Your task to perform on an android device: Toggle the flashlight Image 0: 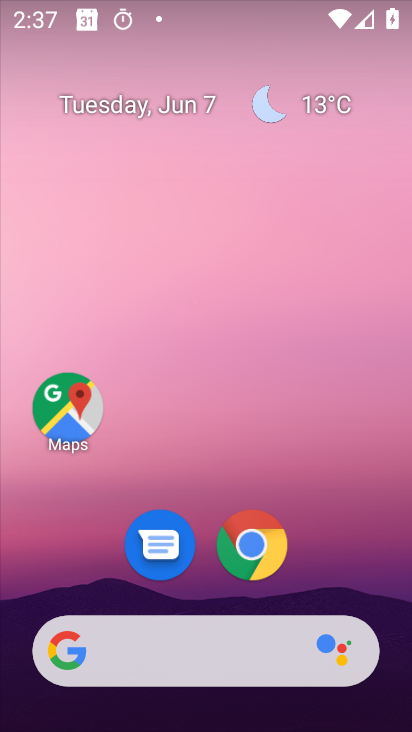
Step 0: drag from (268, 13) to (252, 515)
Your task to perform on an android device: Toggle the flashlight Image 1: 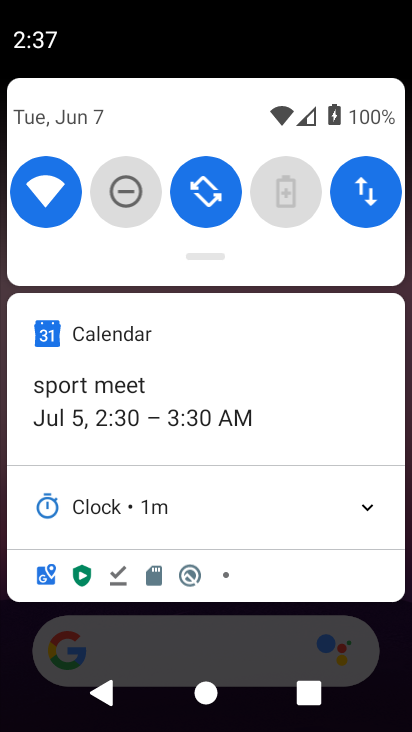
Step 1: task complete